Your task to perform on an android device: Open the calendar and show me this week's events Image 0: 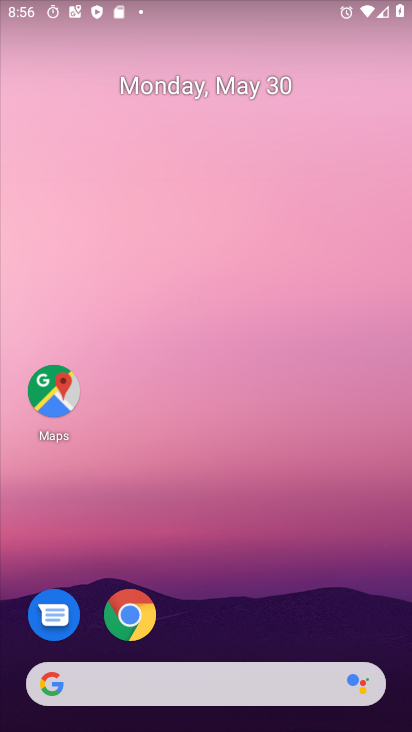
Step 0: drag from (303, 548) to (359, 19)
Your task to perform on an android device: Open the calendar and show me this week's events Image 1: 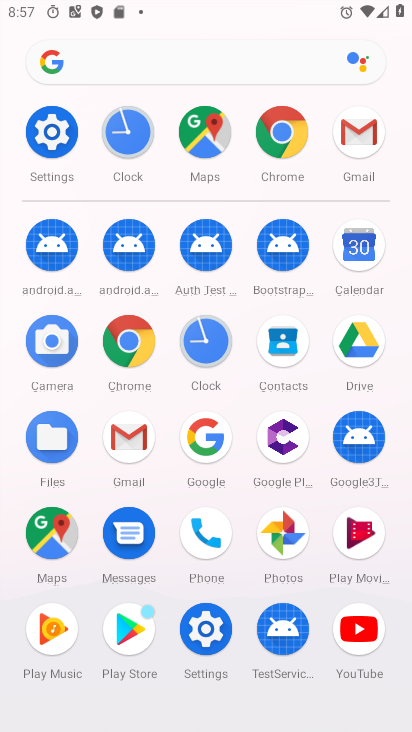
Step 1: click (359, 249)
Your task to perform on an android device: Open the calendar and show me this week's events Image 2: 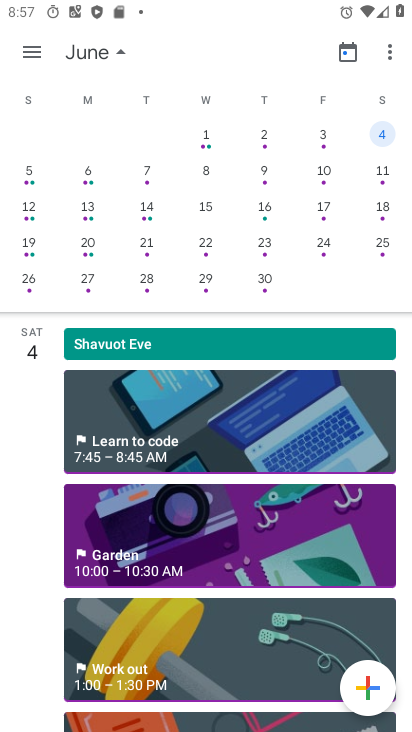
Step 2: task complete